Your task to perform on an android device: uninstall "Adobe Express: Graphic Design" Image 0: 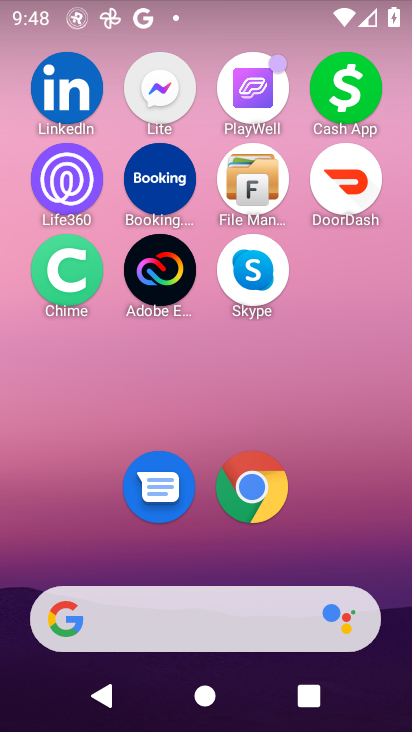
Step 0: drag from (294, 696) to (163, 153)
Your task to perform on an android device: uninstall "Adobe Express: Graphic Design" Image 1: 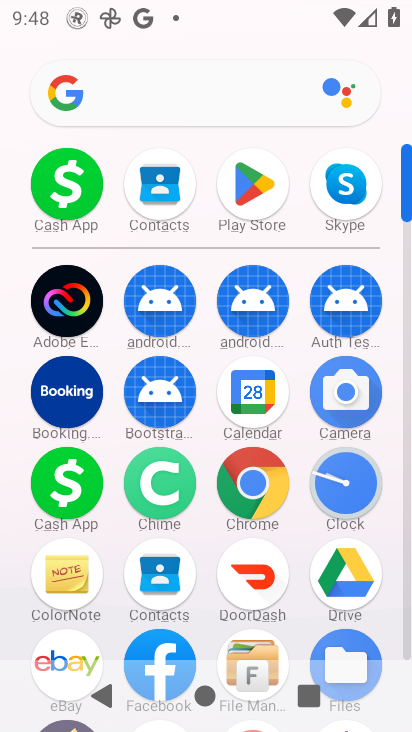
Step 1: click (178, 190)
Your task to perform on an android device: uninstall "Adobe Express: Graphic Design" Image 2: 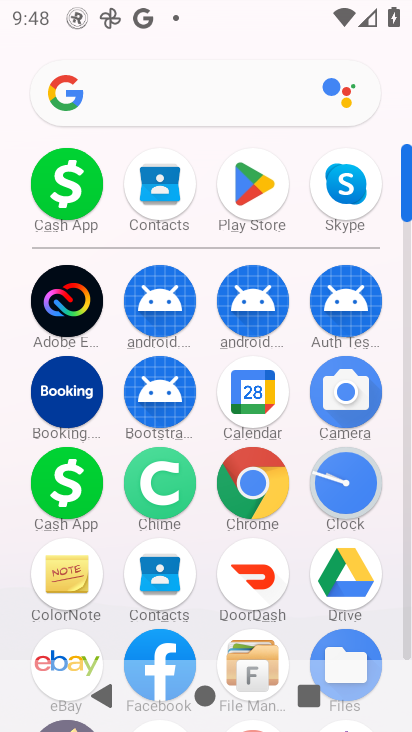
Step 2: drag from (284, 562) to (233, 179)
Your task to perform on an android device: uninstall "Adobe Express: Graphic Design" Image 3: 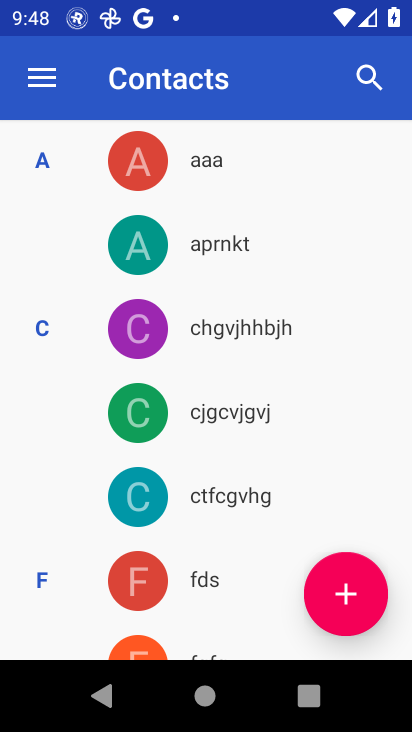
Step 3: press back button
Your task to perform on an android device: uninstall "Adobe Express: Graphic Design" Image 4: 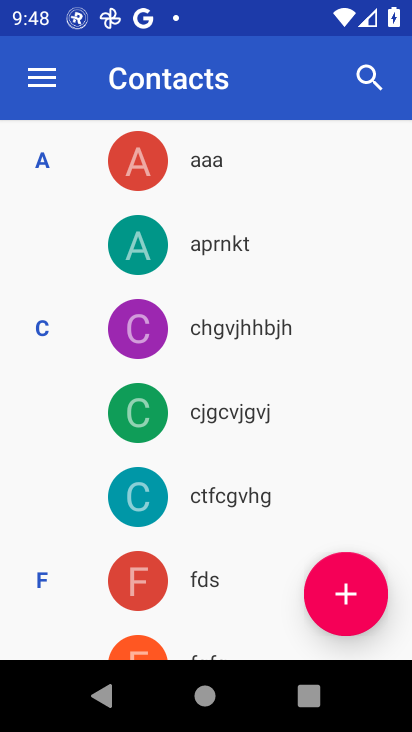
Step 4: press back button
Your task to perform on an android device: uninstall "Adobe Express: Graphic Design" Image 5: 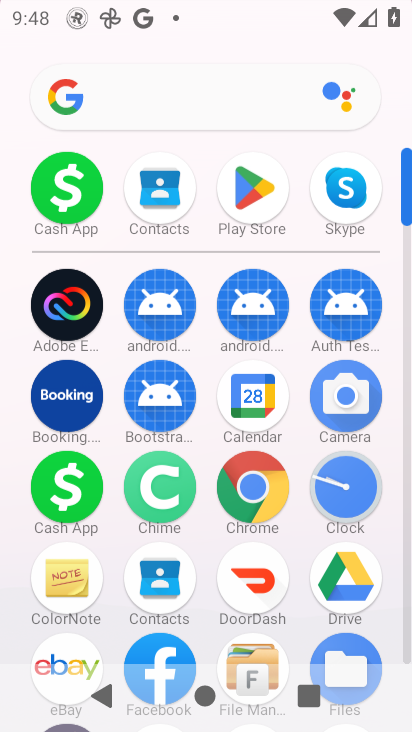
Step 5: press back button
Your task to perform on an android device: uninstall "Adobe Express: Graphic Design" Image 6: 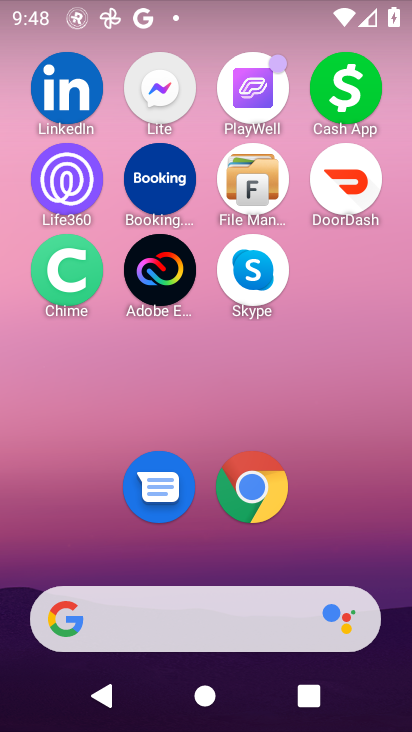
Step 6: drag from (262, 495) to (295, 241)
Your task to perform on an android device: uninstall "Adobe Express: Graphic Design" Image 7: 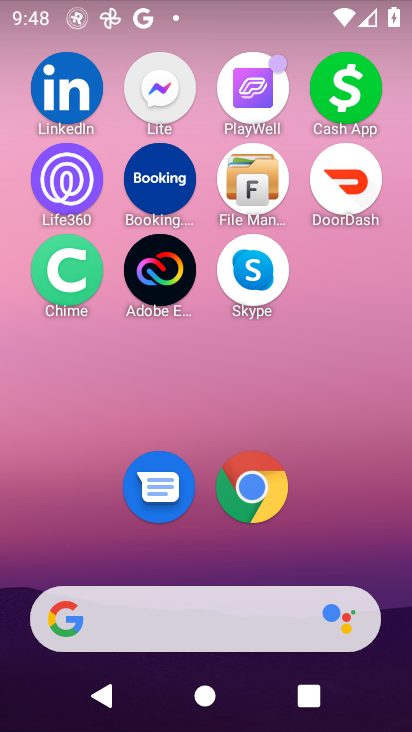
Step 7: drag from (238, 625) to (174, 192)
Your task to perform on an android device: uninstall "Adobe Express: Graphic Design" Image 8: 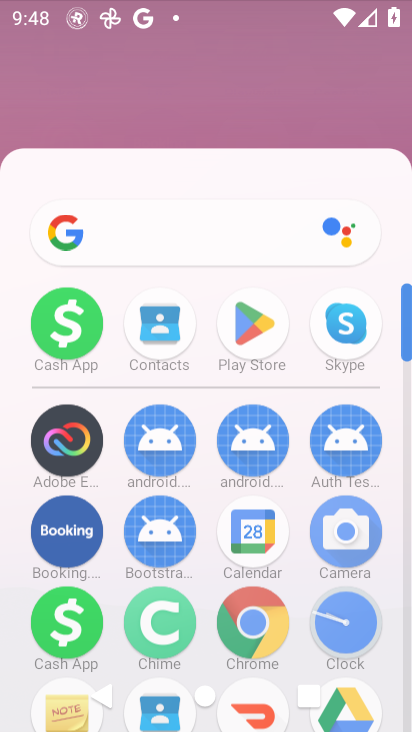
Step 8: click (178, 316)
Your task to perform on an android device: uninstall "Adobe Express: Graphic Design" Image 9: 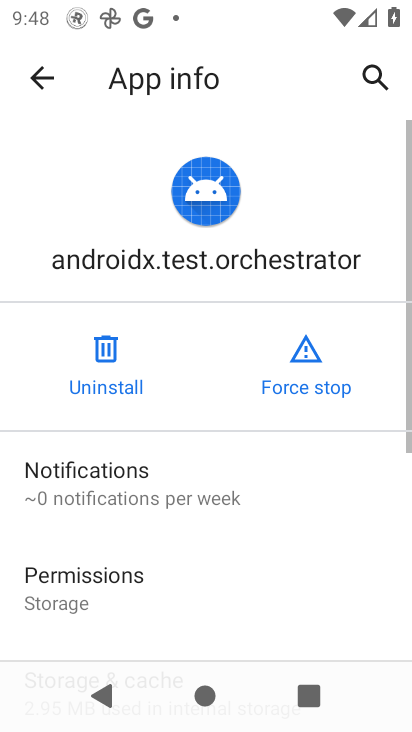
Step 9: click (257, 184)
Your task to perform on an android device: uninstall "Adobe Express: Graphic Design" Image 10: 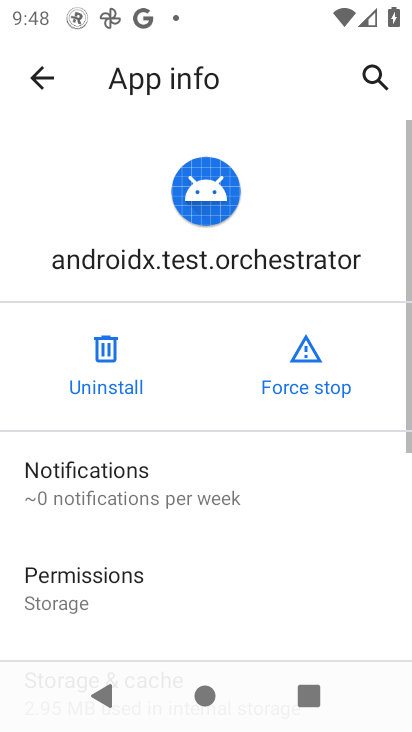
Step 10: click (256, 186)
Your task to perform on an android device: uninstall "Adobe Express: Graphic Design" Image 11: 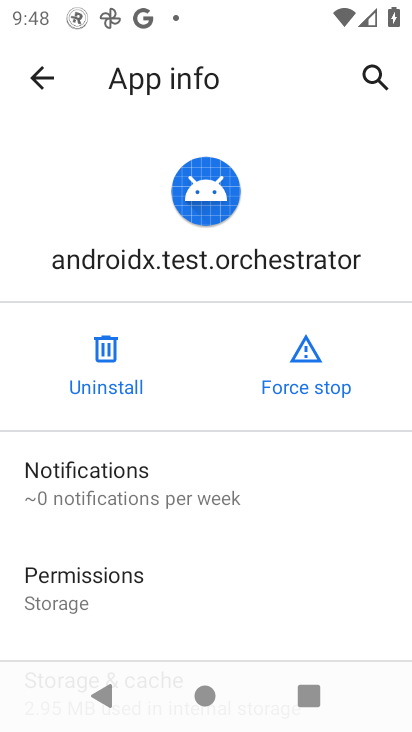
Step 11: click (48, 77)
Your task to perform on an android device: uninstall "Adobe Express: Graphic Design" Image 12: 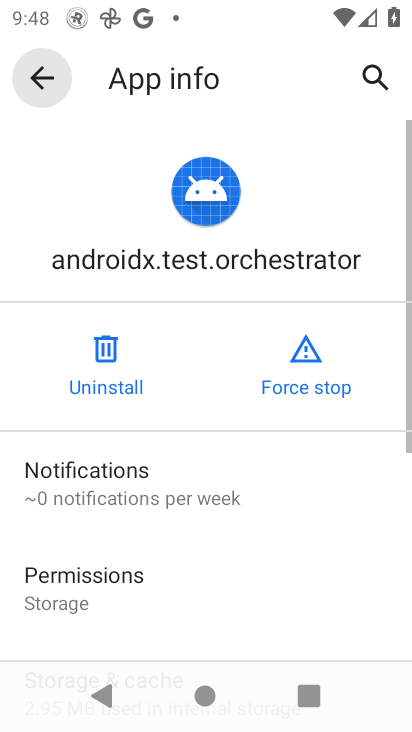
Step 12: click (48, 73)
Your task to perform on an android device: uninstall "Adobe Express: Graphic Design" Image 13: 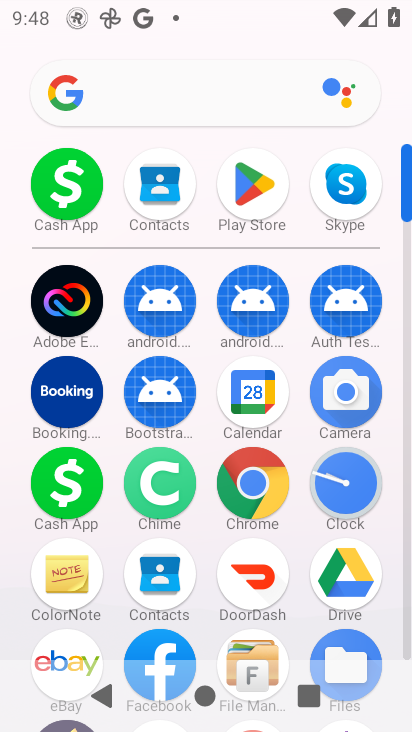
Step 13: click (269, 174)
Your task to perform on an android device: uninstall "Adobe Express: Graphic Design" Image 14: 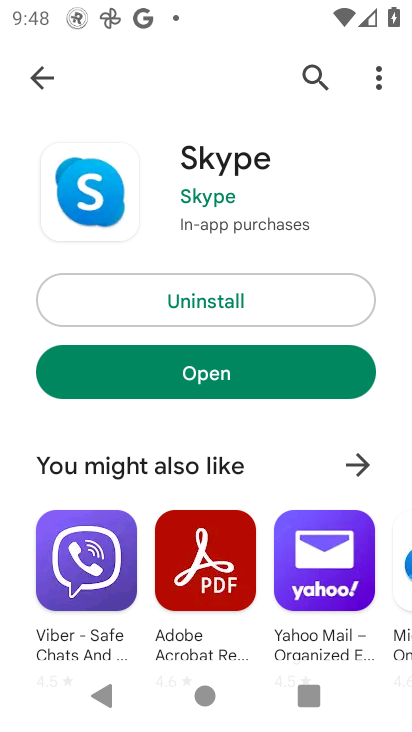
Step 14: click (30, 78)
Your task to perform on an android device: uninstall "Adobe Express: Graphic Design" Image 15: 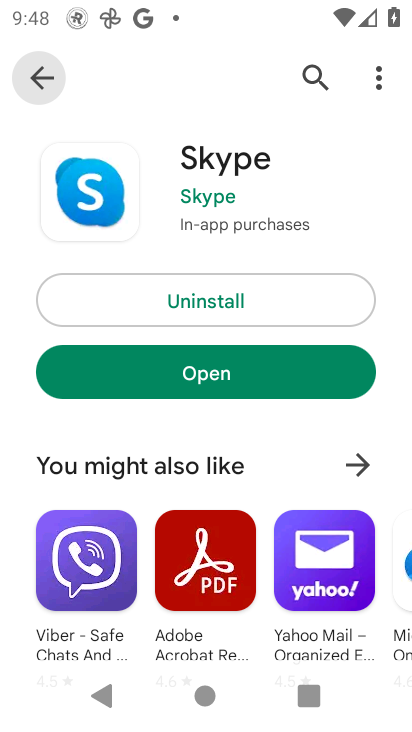
Step 15: click (31, 78)
Your task to perform on an android device: uninstall "Adobe Express: Graphic Design" Image 16: 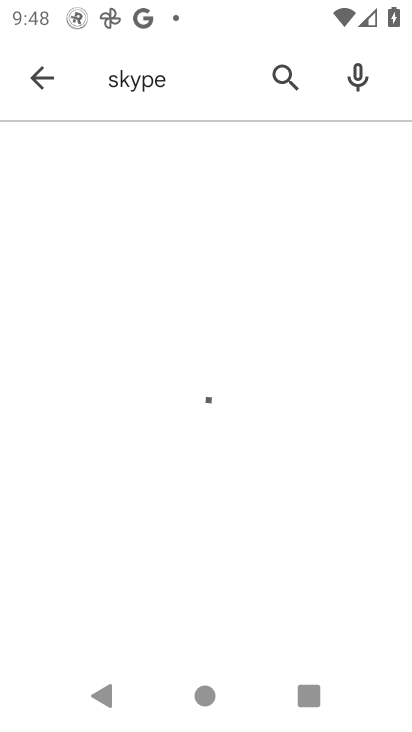
Step 16: click (31, 78)
Your task to perform on an android device: uninstall "Adobe Express: Graphic Design" Image 17: 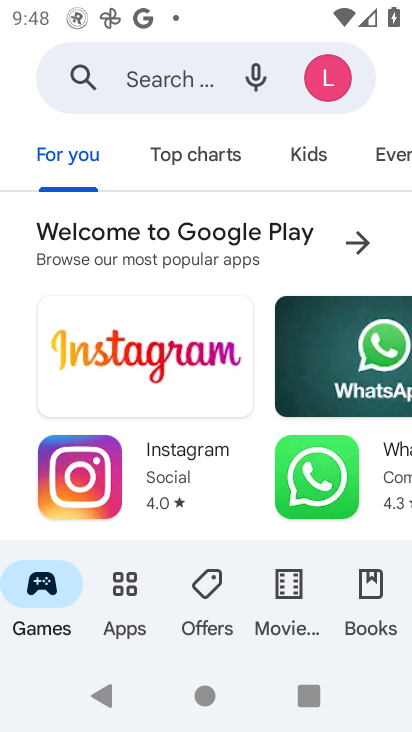
Step 17: click (137, 74)
Your task to perform on an android device: uninstall "Adobe Express: Graphic Design" Image 18: 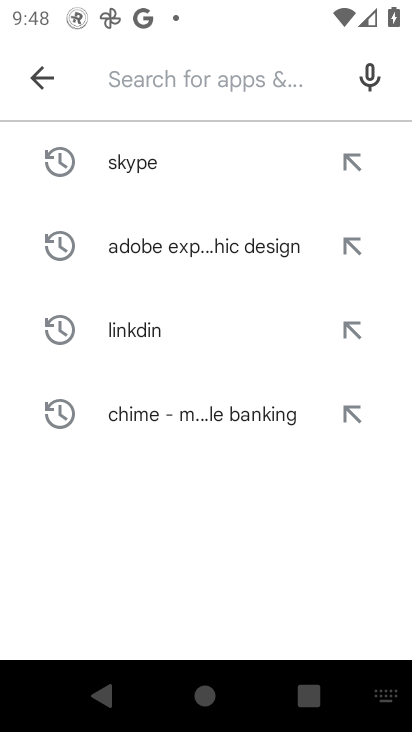
Step 18: type "Adobe Express:Graphic Design"
Your task to perform on an android device: uninstall "Adobe Express: Graphic Design" Image 19: 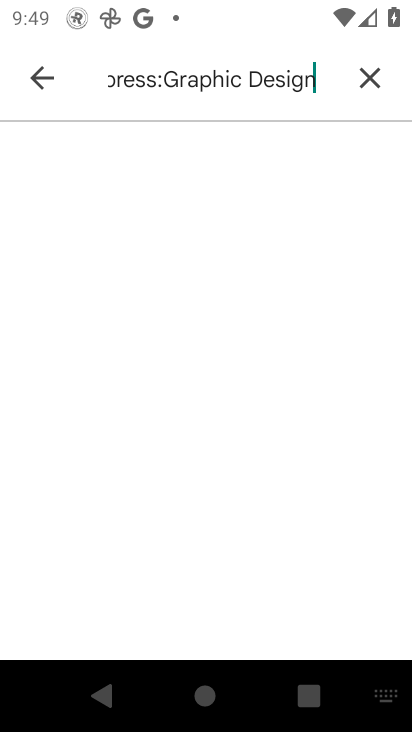
Step 19: click (283, 83)
Your task to perform on an android device: uninstall "Adobe Express: Graphic Design" Image 20: 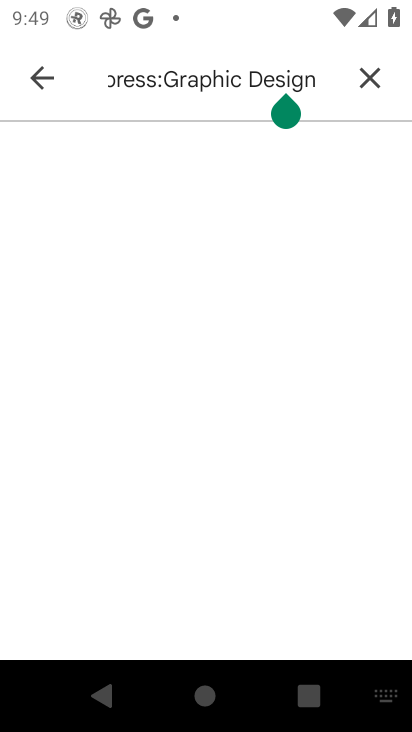
Step 20: click (324, 77)
Your task to perform on an android device: uninstall "Adobe Express: Graphic Design" Image 21: 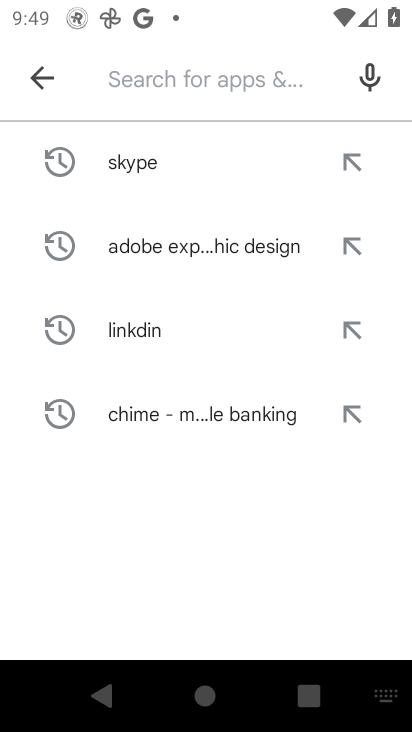
Step 21: click (159, 247)
Your task to perform on an android device: uninstall "Adobe Express: Graphic Design" Image 22: 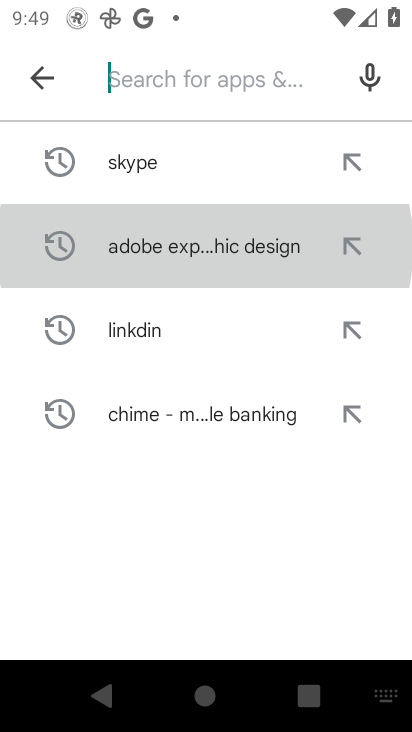
Step 22: click (160, 248)
Your task to perform on an android device: uninstall "Adobe Express: Graphic Design" Image 23: 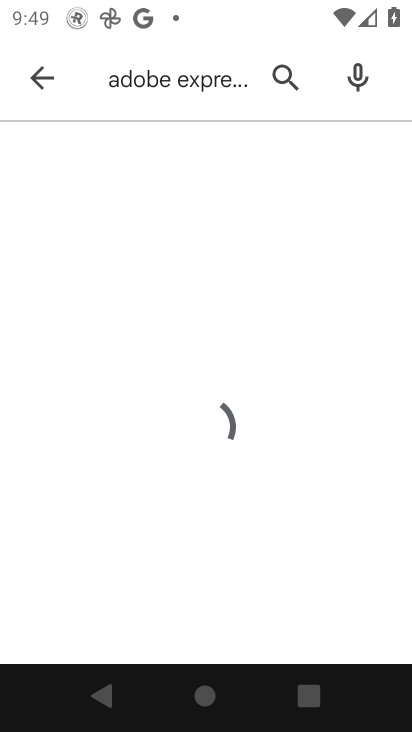
Step 23: click (167, 242)
Your task to perform on an android device: uninstall "Adobe Express: Graphic Design" Image 24: 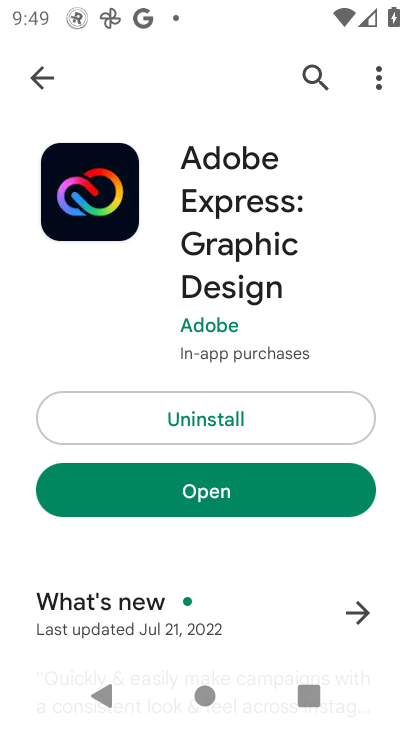
Step 24: click (247, 410)
Your task to perform on an android device: uninstall "Adobe Express: Graphic Design" Image 25: 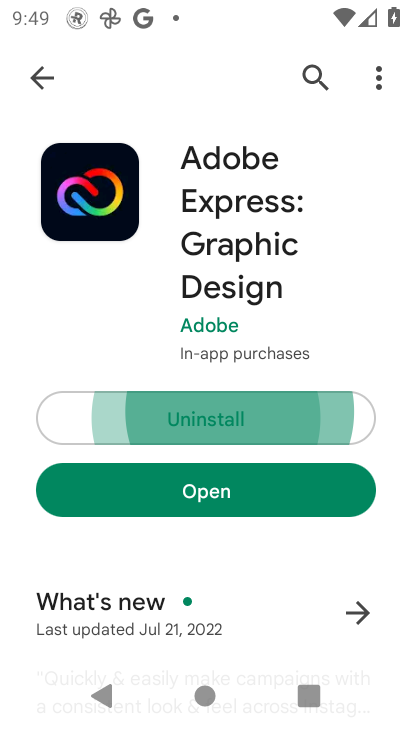
Step 25: click (247, 410)
Your task to perform on an android device: uninstall "Adobe Express: Graphic Design" Image 26: 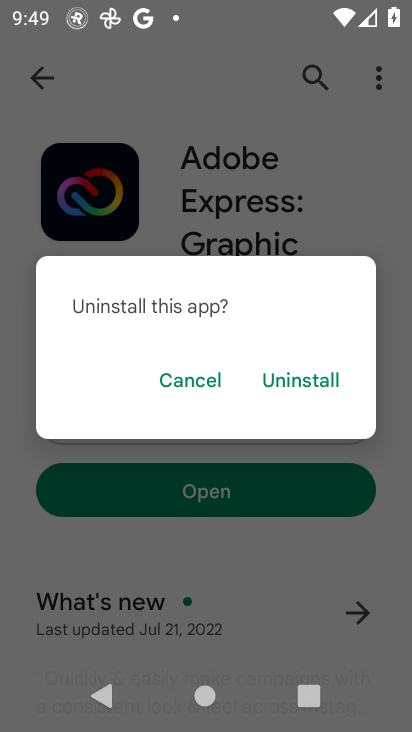
Step 26: click (287, 375)
Your task to perform on an android device: uninstall "Adobe Express: Graphic Design" Image 27: 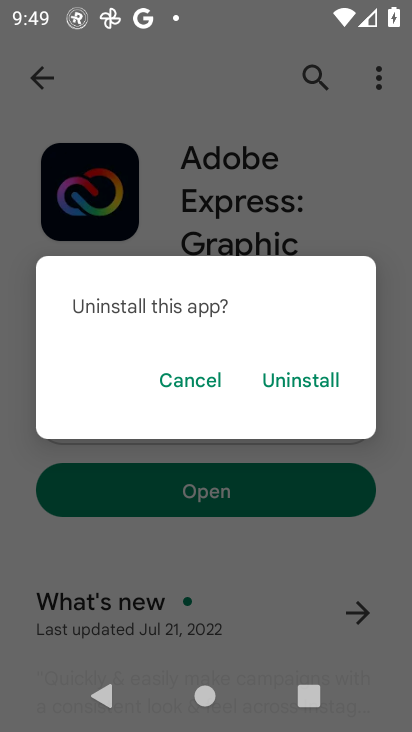
Step 27: click (287, 375)
Your task to perform on an android device: uninstall "Adobe Express: Graphic Design" Image 28: 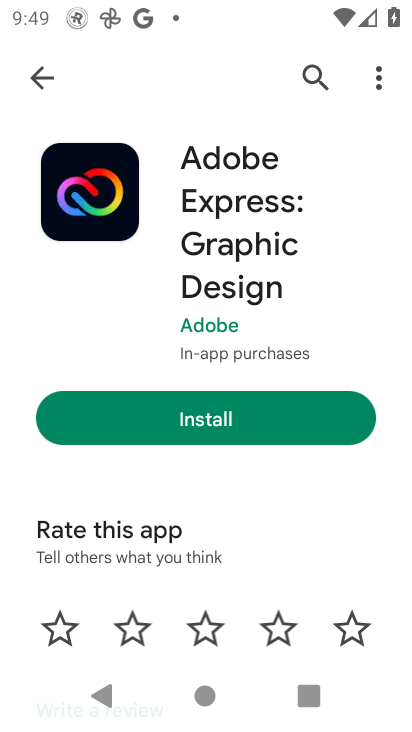
Step 28: task complete